Your task to perform on an android device: check data usage Image 0: 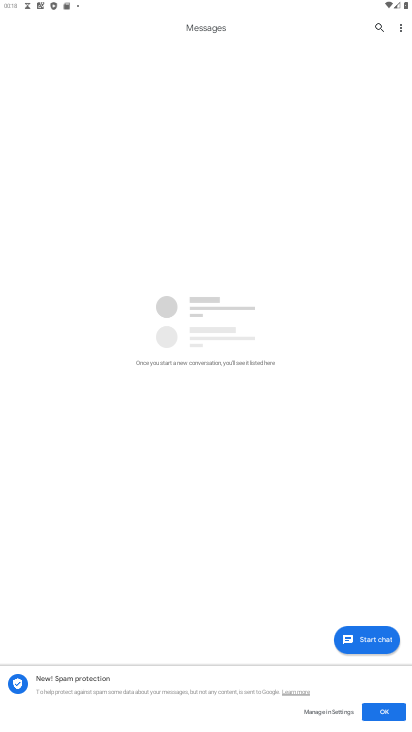
Step 0: press home button
Your task to perform on an android device: check data usage Image 1: 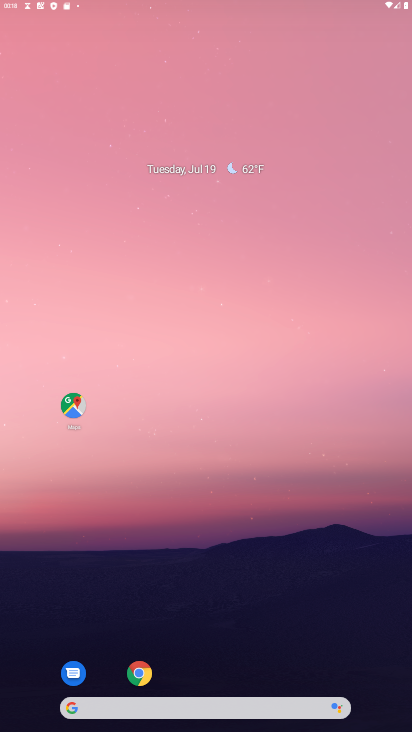
Step 1: drag from (196, 681) to (219, 147)
Your task to perform on an android device: check data usage Image 2: 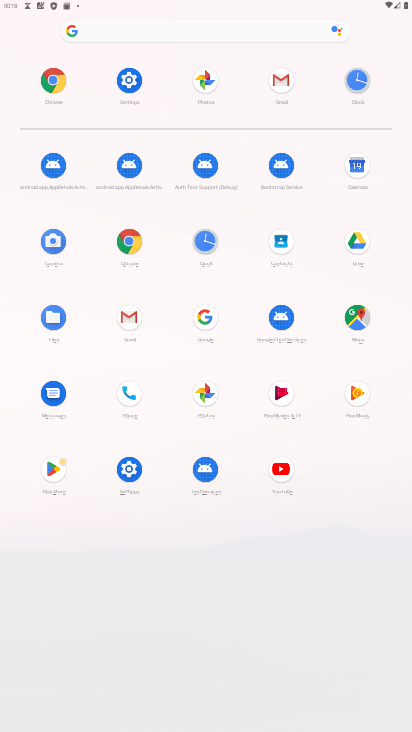
Step 2: click (132, 82)
Your task to perform on an android device: check data usage Image 3: 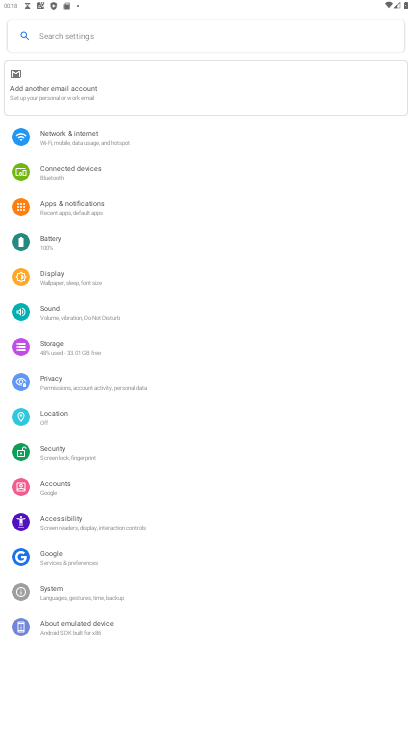
Step 3: click (94, 129)
Your task to perform on an android device: check data usage Image 4: 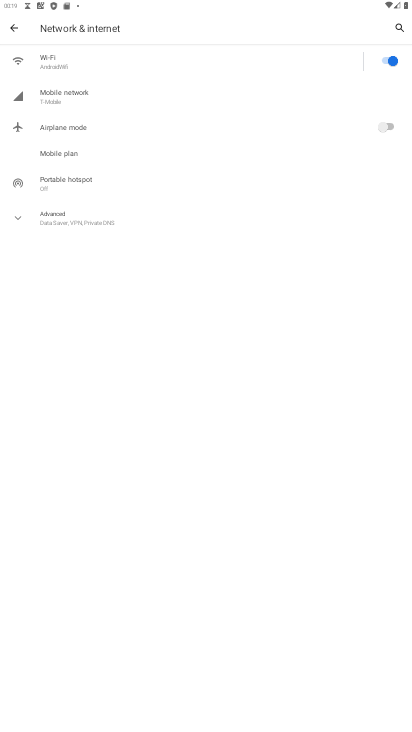
Step 4: click (82, 94)
Your task to perform on an android device: check data usage Image 5: 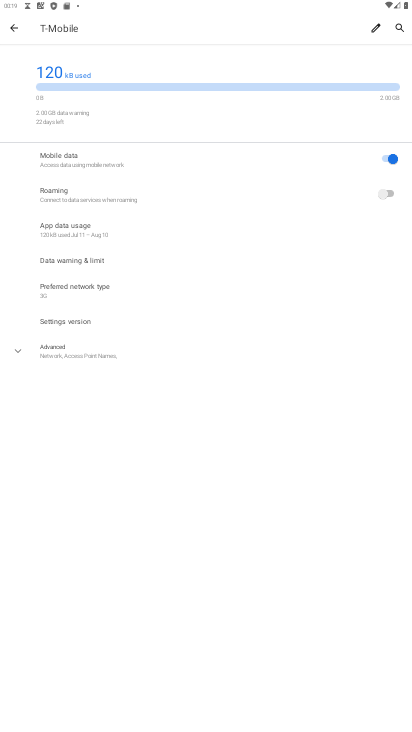
Step 5: task complete